Your task to perform on an android device: Go to accessibility settings Image 0: 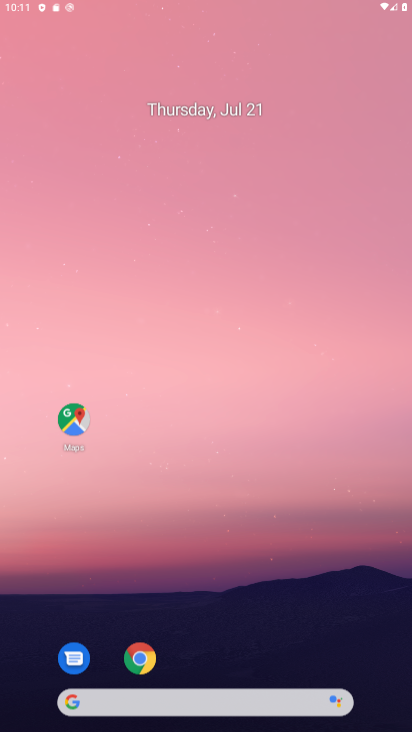
Step 0: drag from (211, 727) to (214, 271)
Your task to perform on an android device: Go to accessibility settings Image 1: 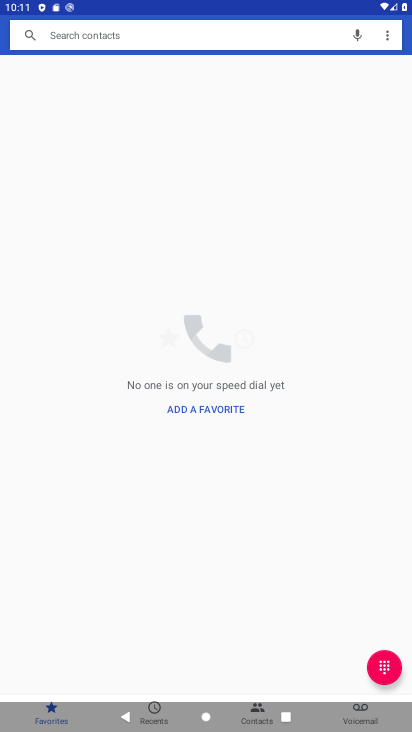
Step 1: press home button
Your task to perform on an android device: Go to accessibility settings Image 2: 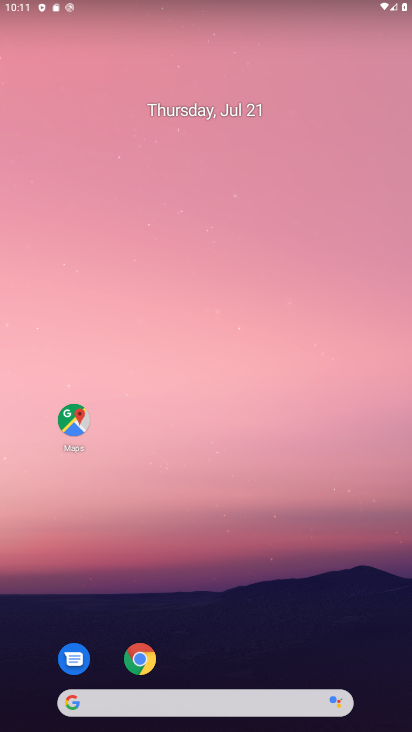
Step 2: drag from (235, 730) to (232, 247)
Your task to perform on an android device: Go to accessibility settings Image 3: 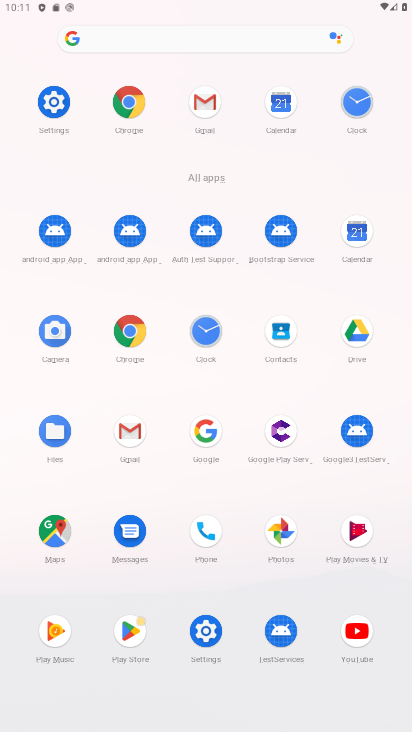
Step 3: click (49, 101)
Your task to perform on an android device: Go to accessibility settings Image 4: 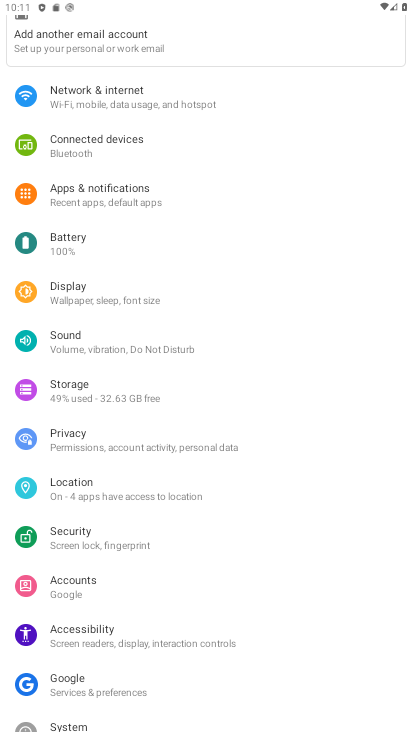
Step 4: click (86, 631)
Your task to perform on an android device: Go to accessibility settings Image 5: 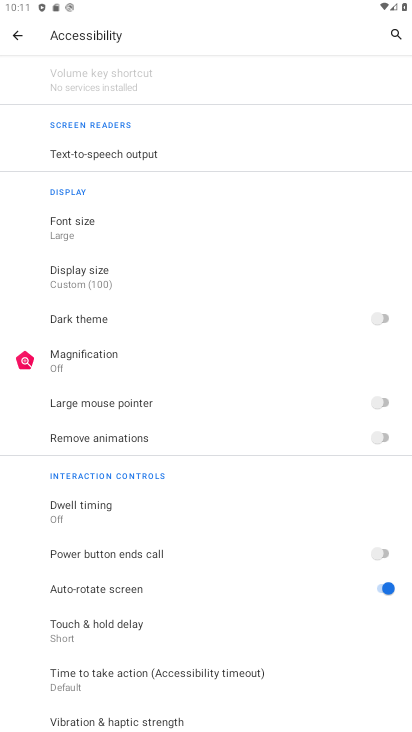
Step 5: task complete